Your task to perform on an android device: Go to accessibility settings Image 0: 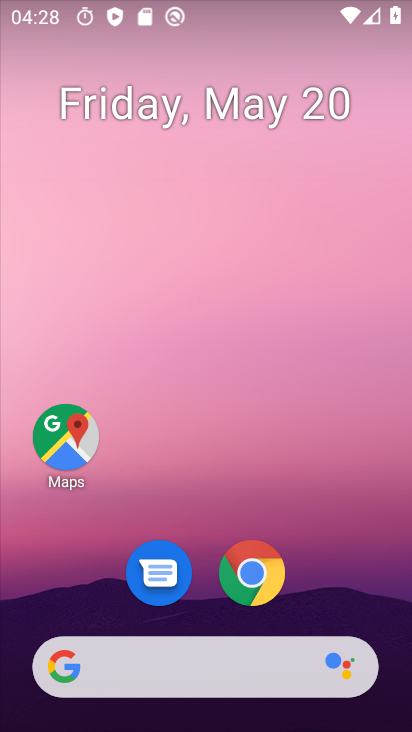
Step 0: drag from (359, 668) to (152, 146)
Your task to perform on an android device: Go to accessibility settings Image 1: 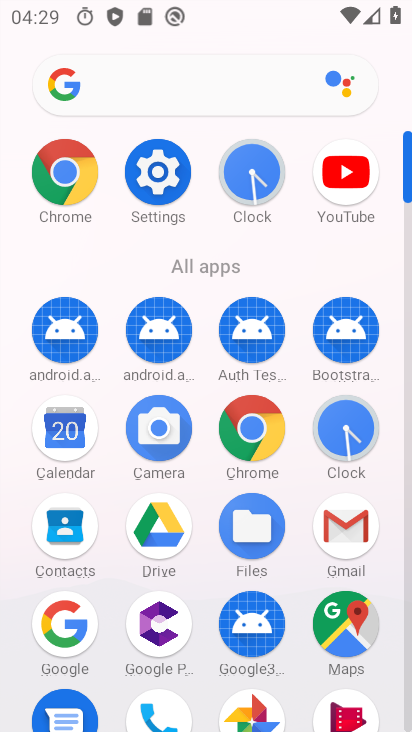
Step 1: click (149, 173)
Your task to perform on an android device: Go to accessibility settings Image 2: 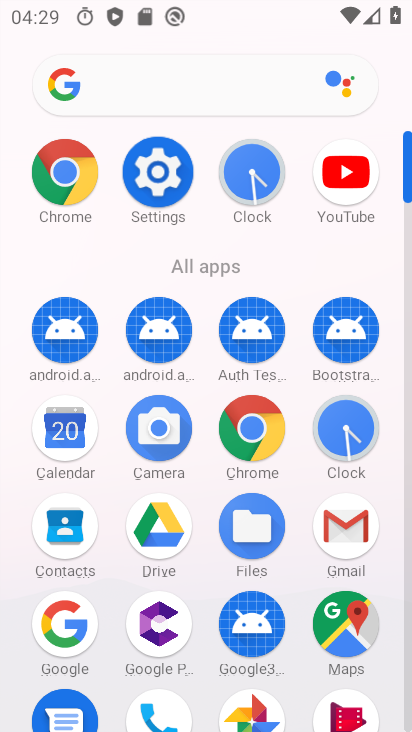
Step 2: click (149, 173)
Your task to perform on an android device: Go to accessibility settings Image 3: 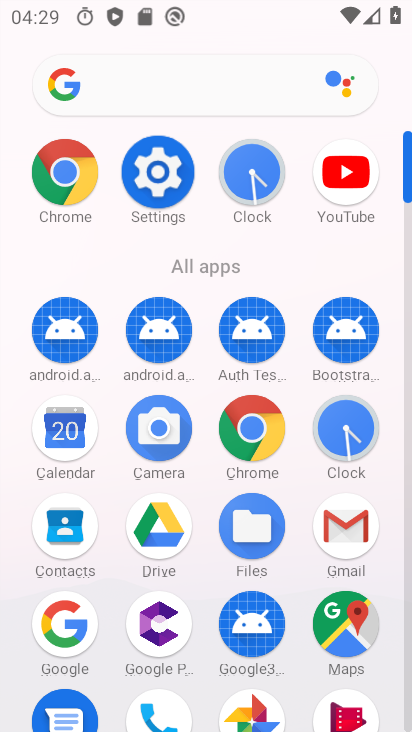
Step 3: click (149, 173)
Your task to perform on an android device: Go to accessibility settings Image 4: 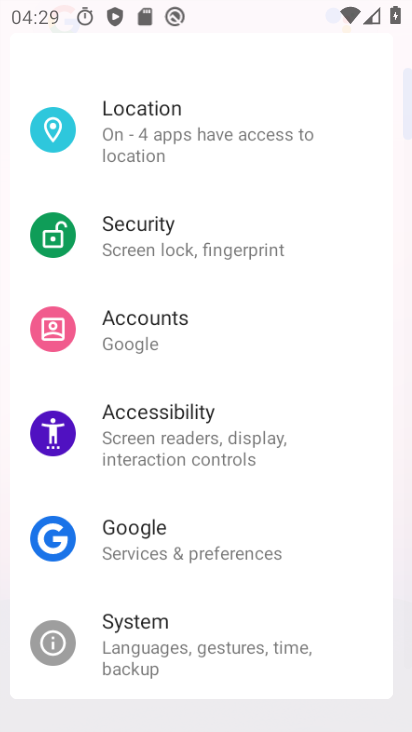
Step 4: click (150, 172)
Your task to perform on an android device: Go to accessibility settings Image 5: 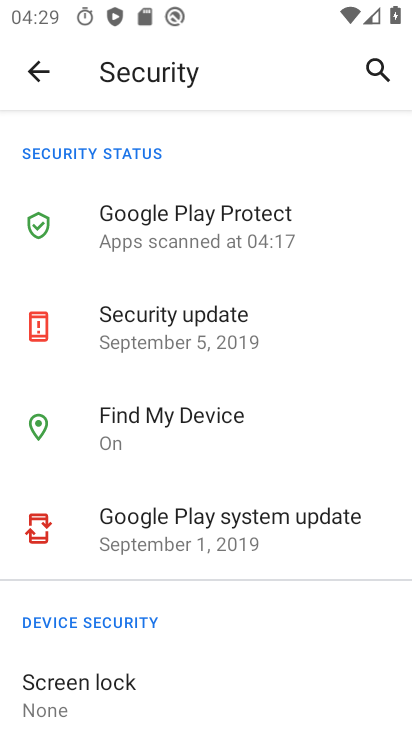
Step 5: click (41, 74)
Your task to perform on an android device: Go to accessibility settings Image 6: 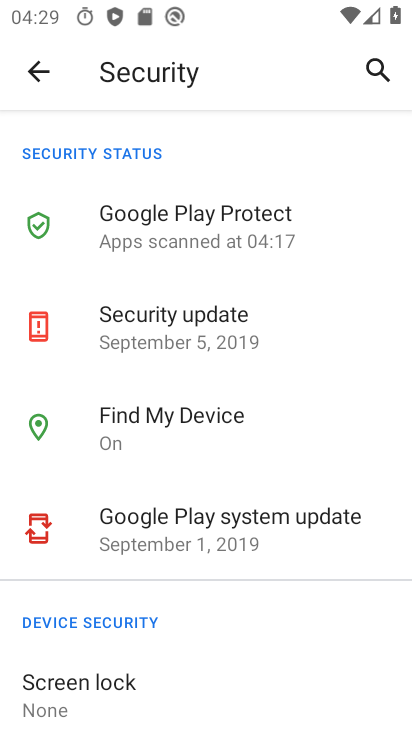
Step 6: click (41, 74)
Your task to perform on an android device: Go to accessibility settings Image 7: 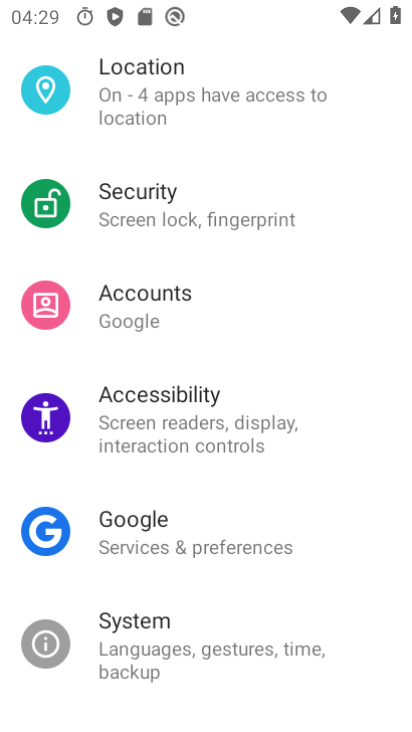
Step 7: click (45, 68)
Your task to perform on an android device: Go to accessibility settings Image 8: 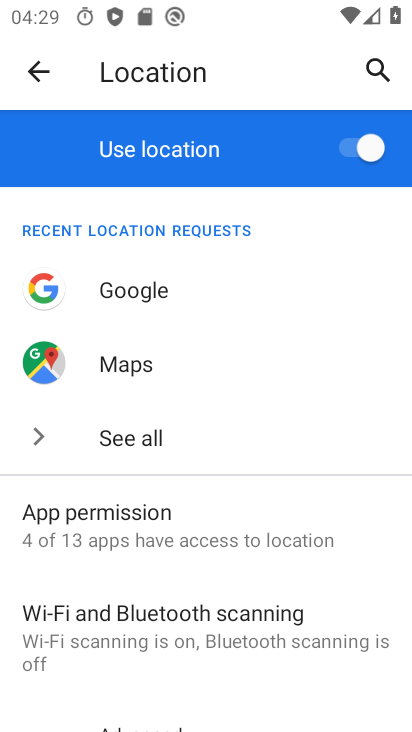
Step 8: click (32, 70)
Your task to perform on an android device: Go to accessibility settings Image 9: 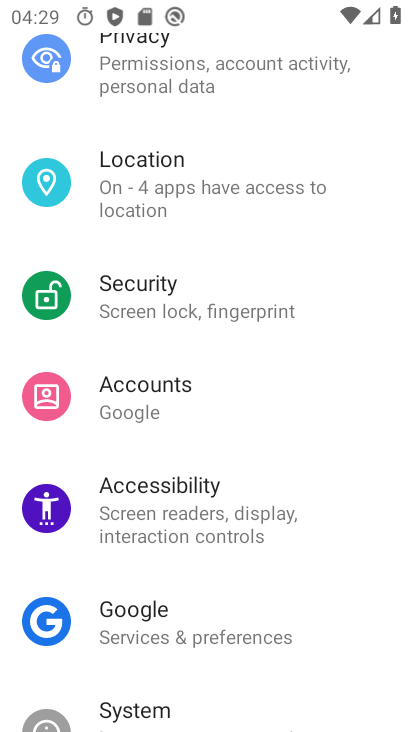
Step 9: click (163, 511)
Your task to perform on an android device: Go to accessibility settings Image 10: 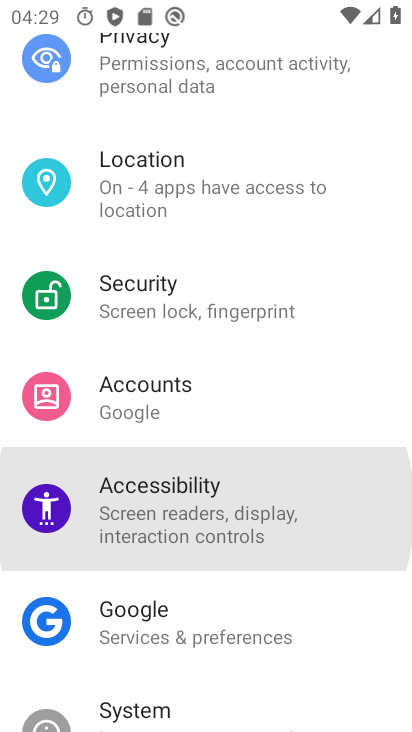
Step 10: click (163, 511)
Your task to perform on an android device: Go to accessibility settings Image 11: 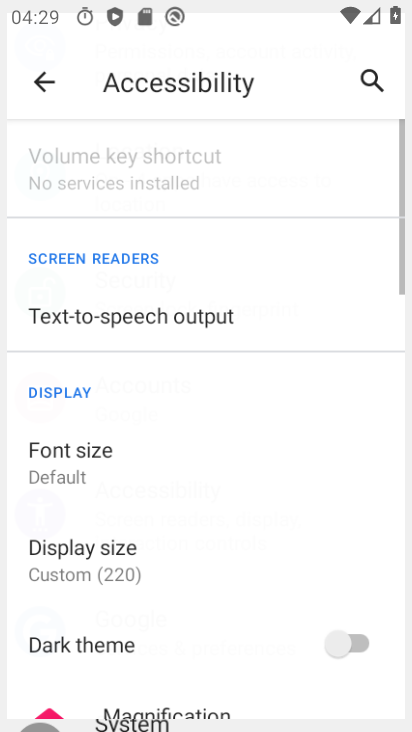
Step 11: click (163, 511)
Your task to perform on an android device: Go to accessibility settings Image 12: 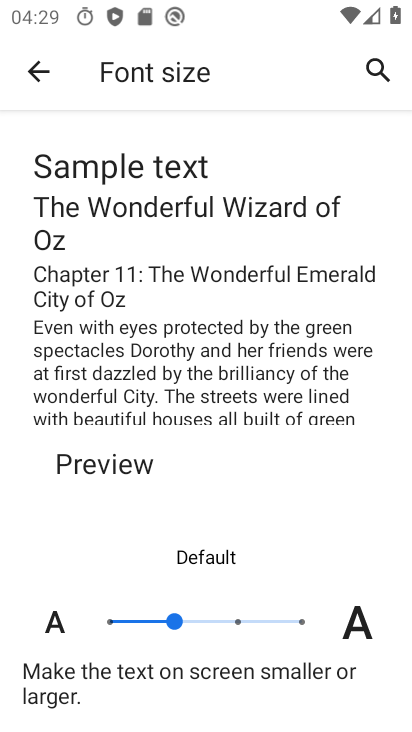
Step 12: click (30, 79)
Your task to perform on an android device: Go to accessibility settings Image 13: 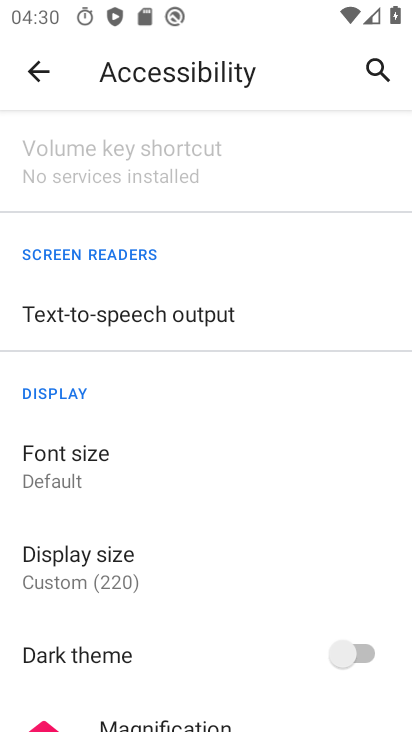
Step 13: task complete